Your task to perform on an android device: turn off sleep mode Image 0: 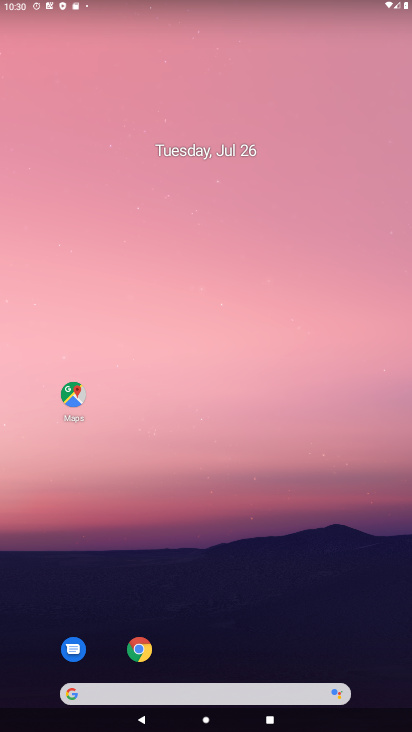
Step 0: drag from (182, 678) to (216, 137)
Your task to perform on an android device: turn off sleep mode Image 1: 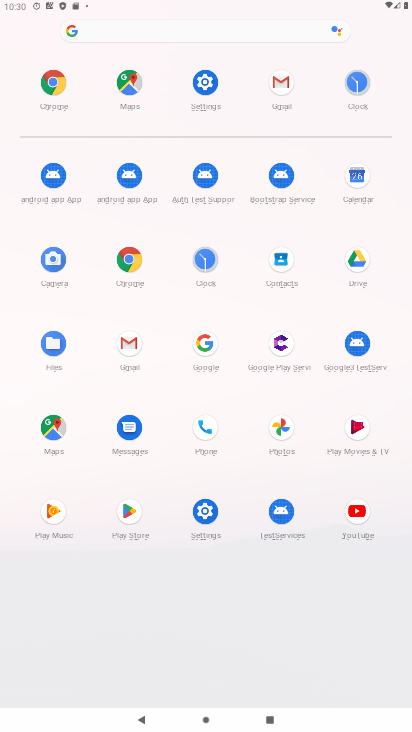
Step 1: click (215, 522)
Your task to perform on an android device: turn off sleep mode Image 2: 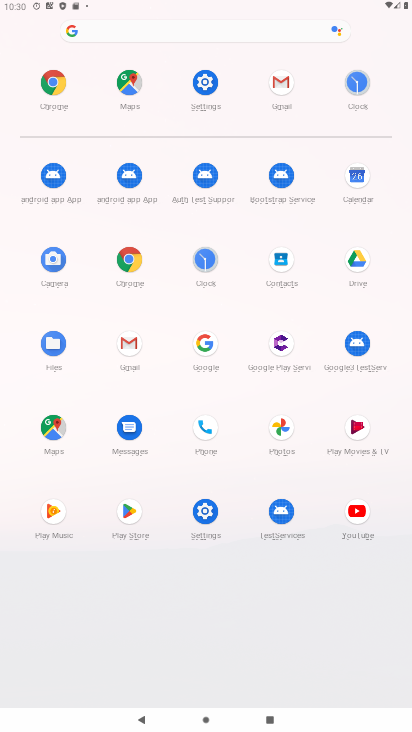
Step 2: click (210, 516)
Your task to perform on an android device: turn off sleep mode Image 3: 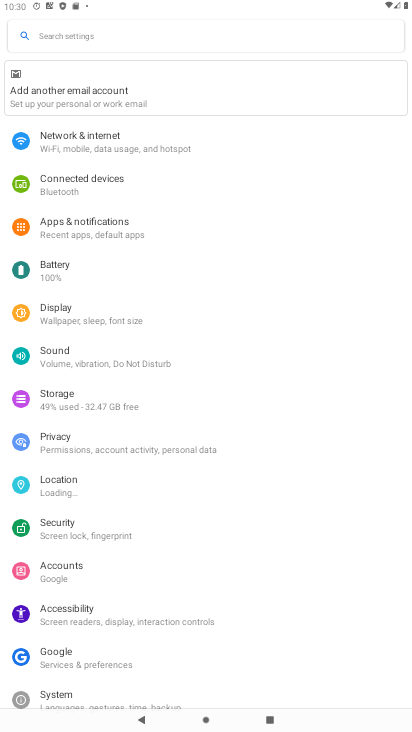
Step 3: drag from (173, 643) to (175, 326)
Your task to perform on an android device: turn off sleep mode Image 4: 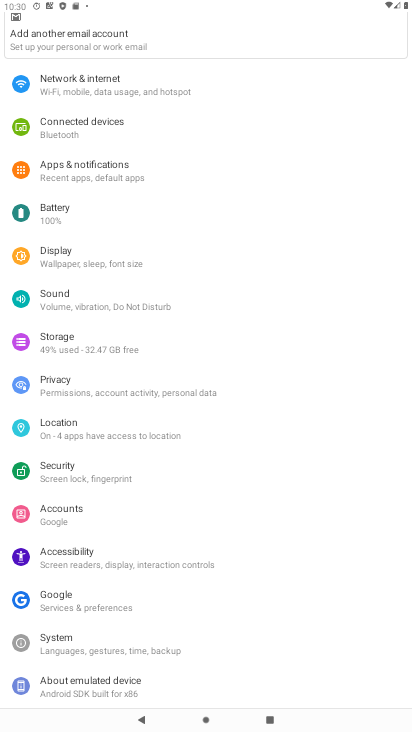
Step 4: drag from (219, 179) to (215, 675)
Your task to perform on an android device: turn off sleep mode Image 5: 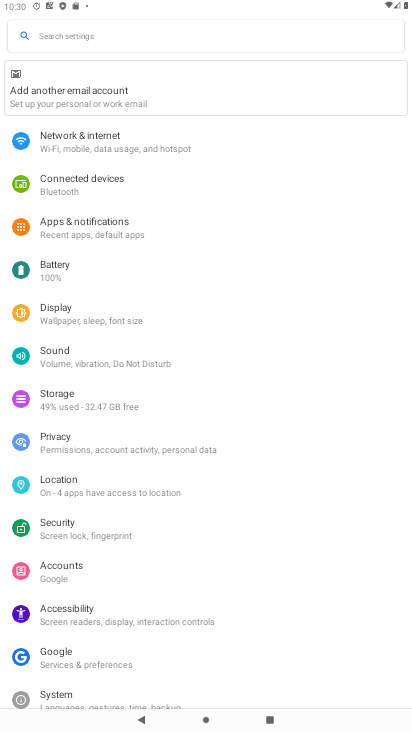
Step 5: click (78, 306)
Your task to perform on an android device: turn off sleep mode Image 6: 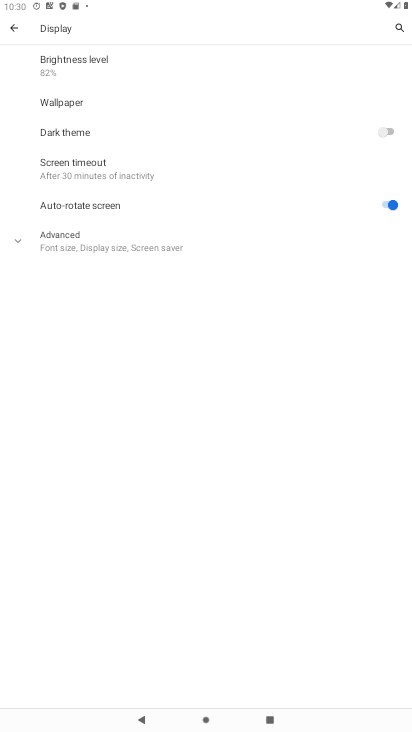
Step 6: click (122, 238)
Your task to perform on an android device: turn off sleep mode Image 7: 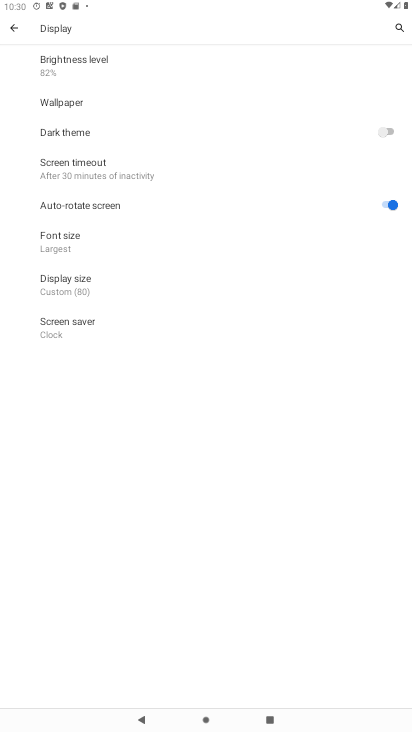
Step 7: click (130, 165)
Your task to perform on an android device: turn off sleep mode Image 8: 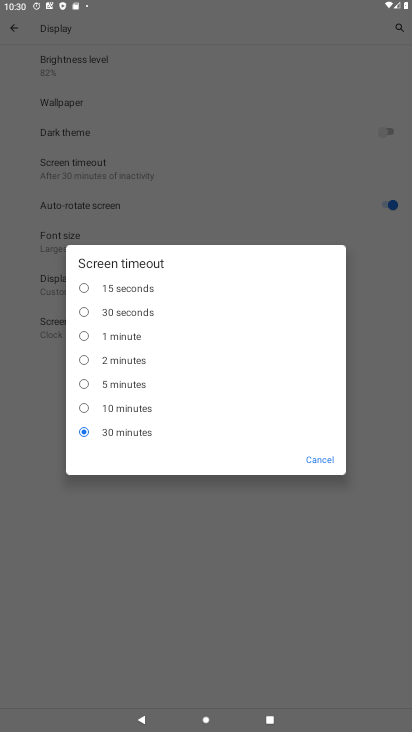
Step 8: task complete